Your task to perform on an android device: set the stopwatch Image 0: 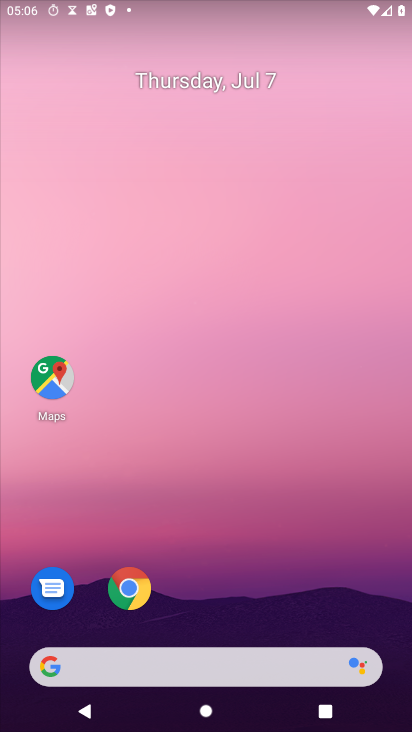
Step 0: press home button
Your task to perform on an android device: set the stopwatch Image 1: 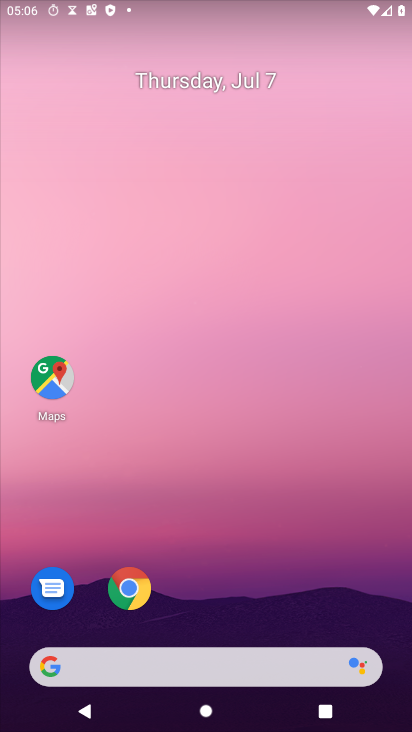
Step 1: drag from (240, 500) to (314, 105)
Your task to perform on an android device: set the stopwatch Image 2: 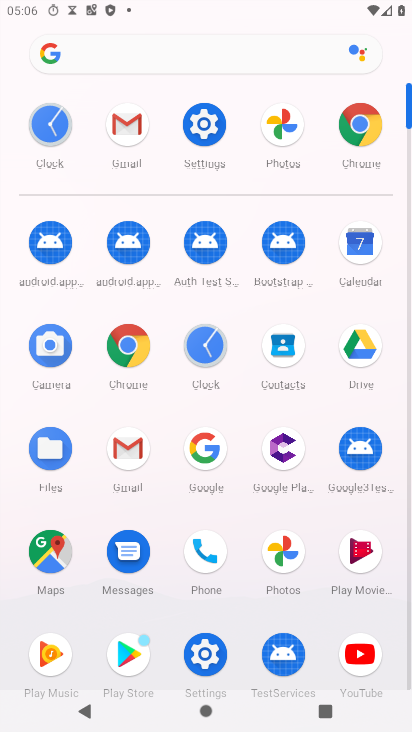
Step 2: click (202, 356)
Your task to perform on an android device: set the stopwatch Image 3: 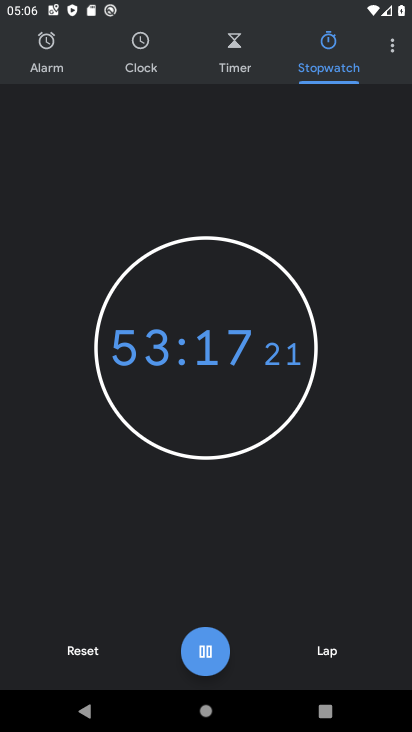
Step 3: click (339, 49)
Your task to perform on an android device: set the stopwatch Image 4: 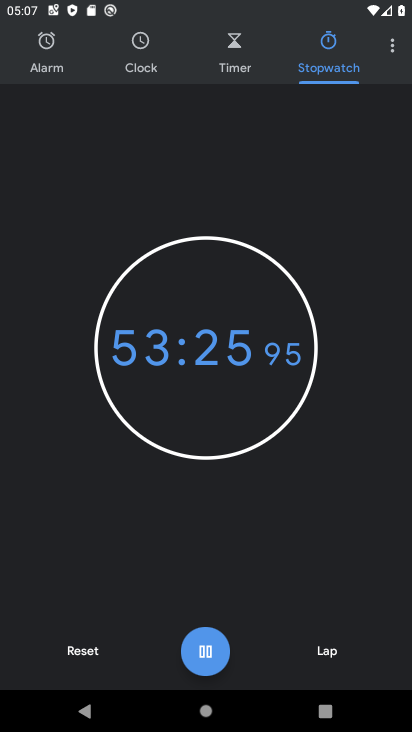
Step 4: task complete